Your task to perform on an android device: What is the recent news? Image 0: 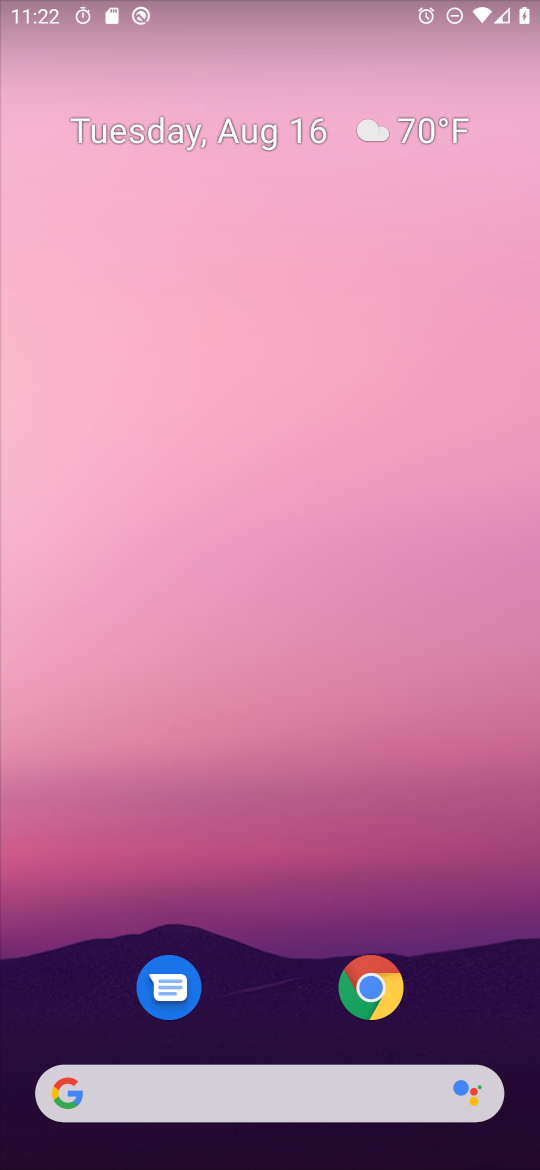
Step 0: click (114, 1095)
Your task to perform on an android device: What is the recent news? Image 1: 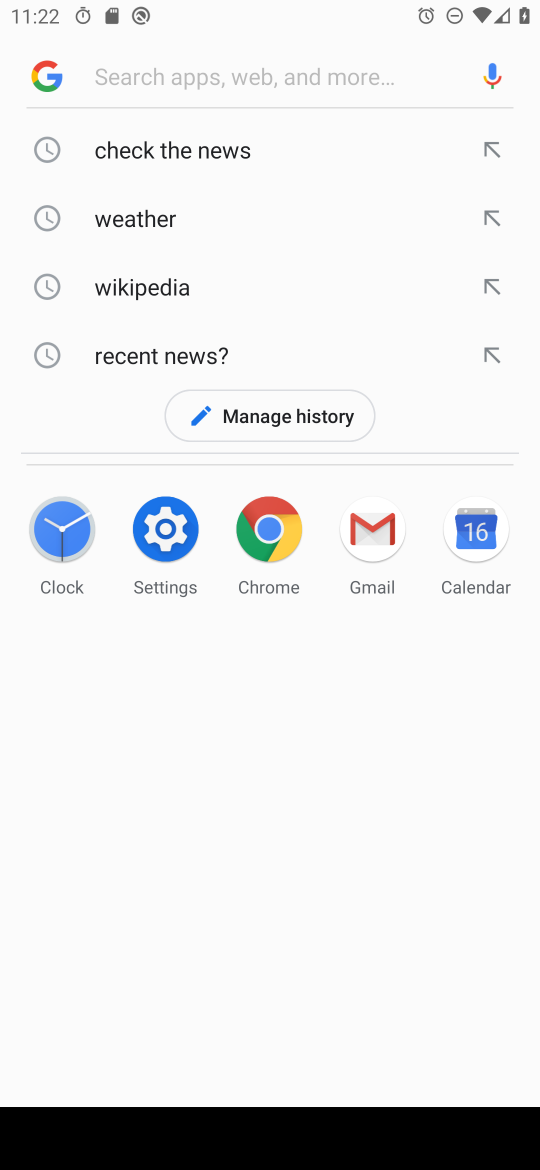
Step 1: type "What is the recent news?"
Your task to perform on an android device: What is the recent news? Image 2: 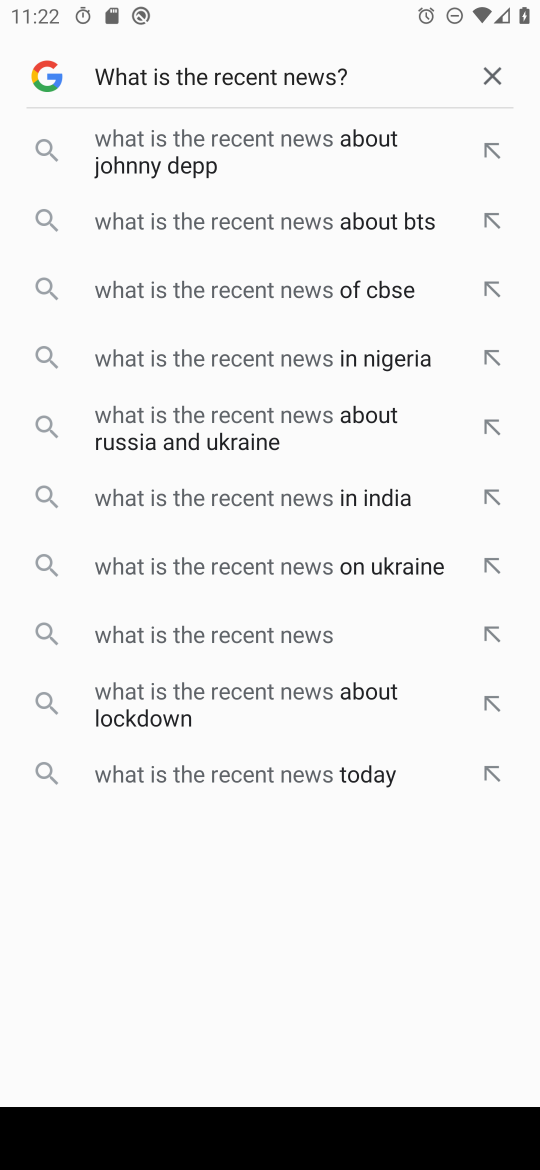
Step 2: type ""
Your task to perform on an android device: What is the recent news? Image 3: 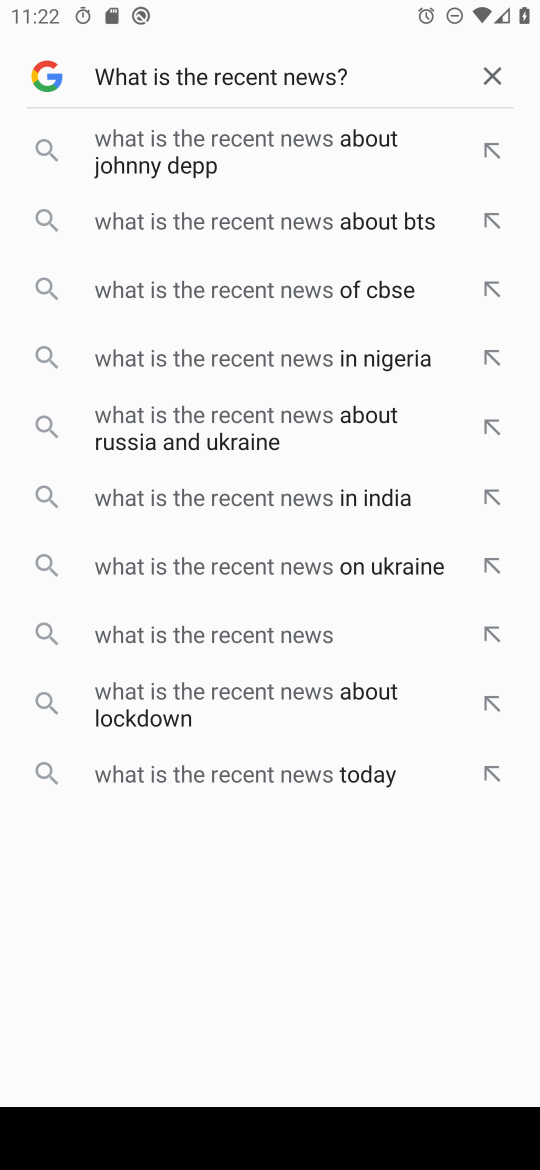
Step 3: task complete